Your task to perform on an android device: open app "DoorDash - Food Delivery" (install if not already installed) Image 0: 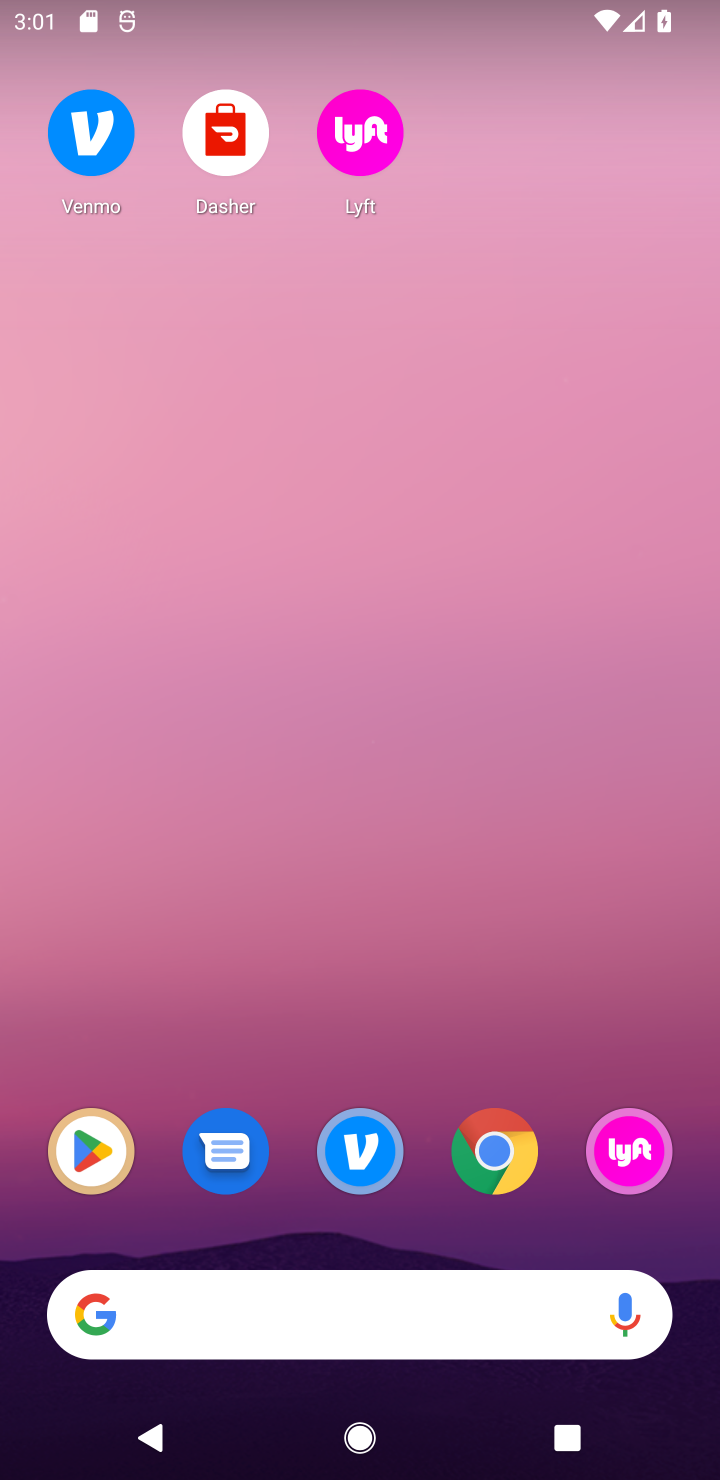
Step 0: drag from (319, 1260) to (337, 316)
Your task to perform on an android device: open app "DoorDash - Food Delivery" (install if not already installed) Image 1: 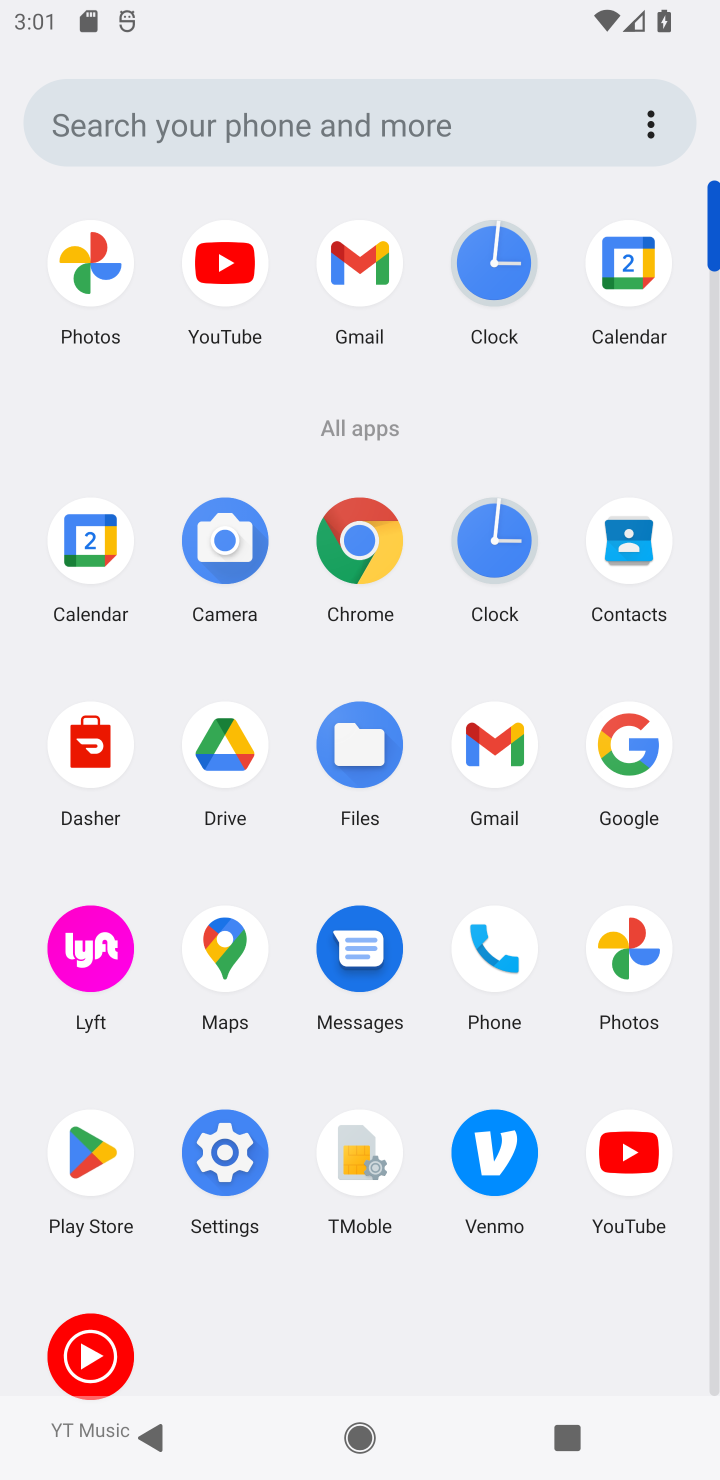
Step 1: click (88, 1185)
Your task to perform on an android device: open app "DoorDash - Food Delivery" (install if not already installed) Image 2: 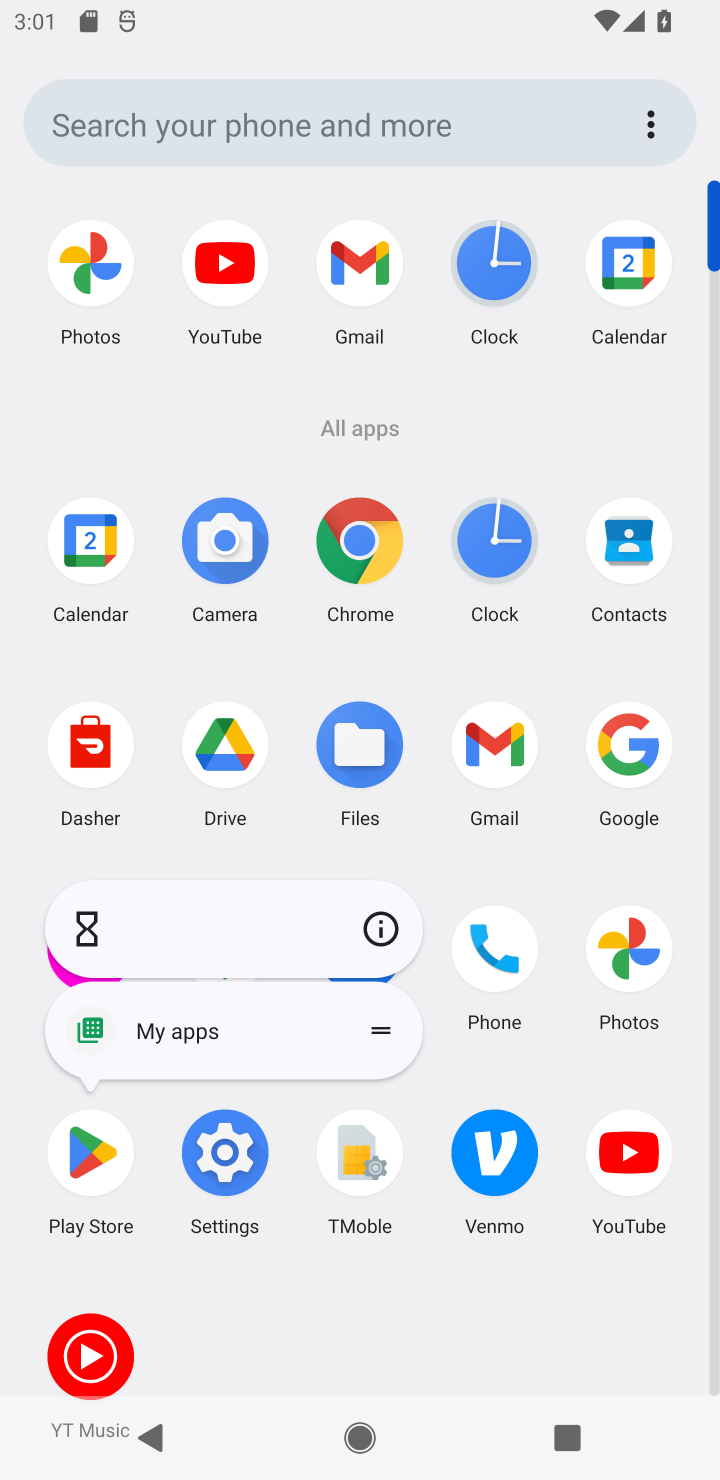
Step 2: click (87, 1216)
Your task to perform on an android device: open app "DoorDash - Food Delivery" (install if not already installed) Image 3: 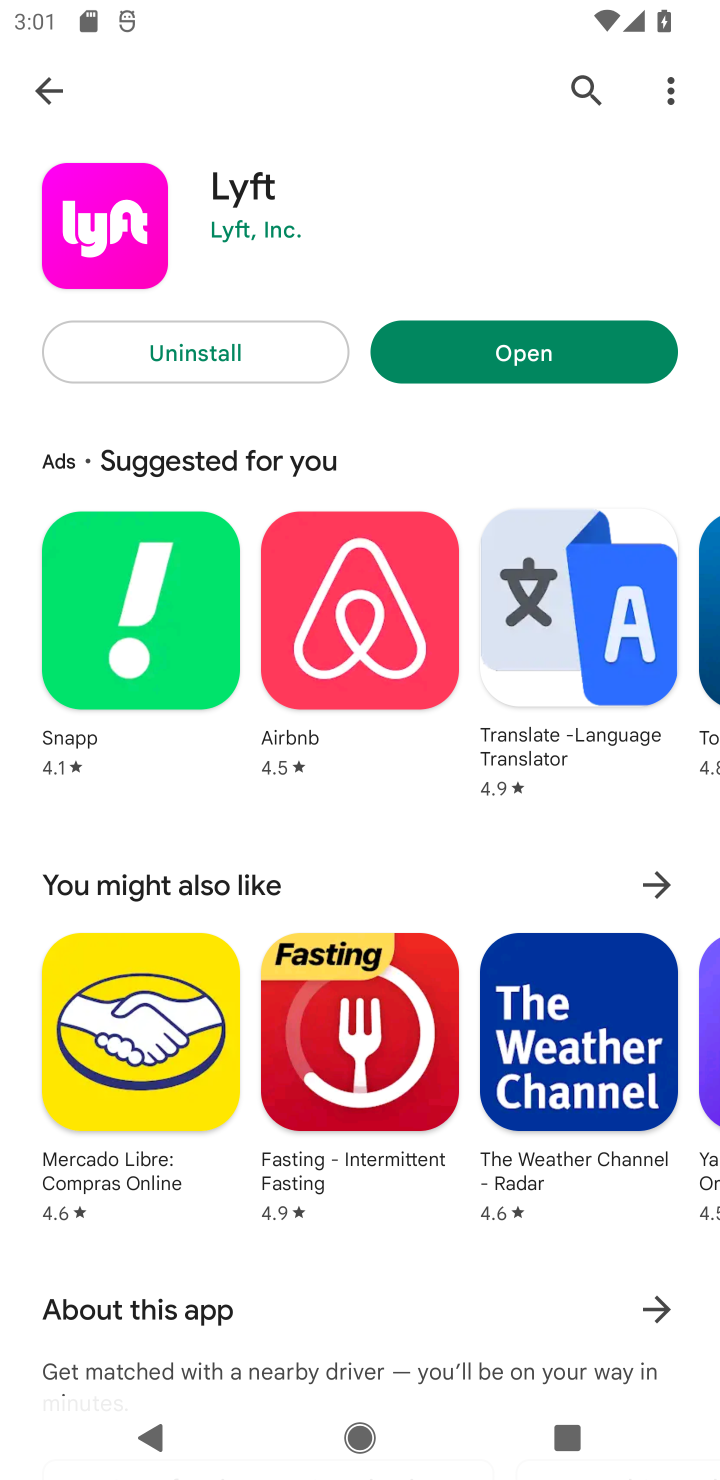
Step 3: click (49, 95)
Your task to perform on an android device: open app "DoorDash - Food Delivery" (install if not already installed) Image 4: 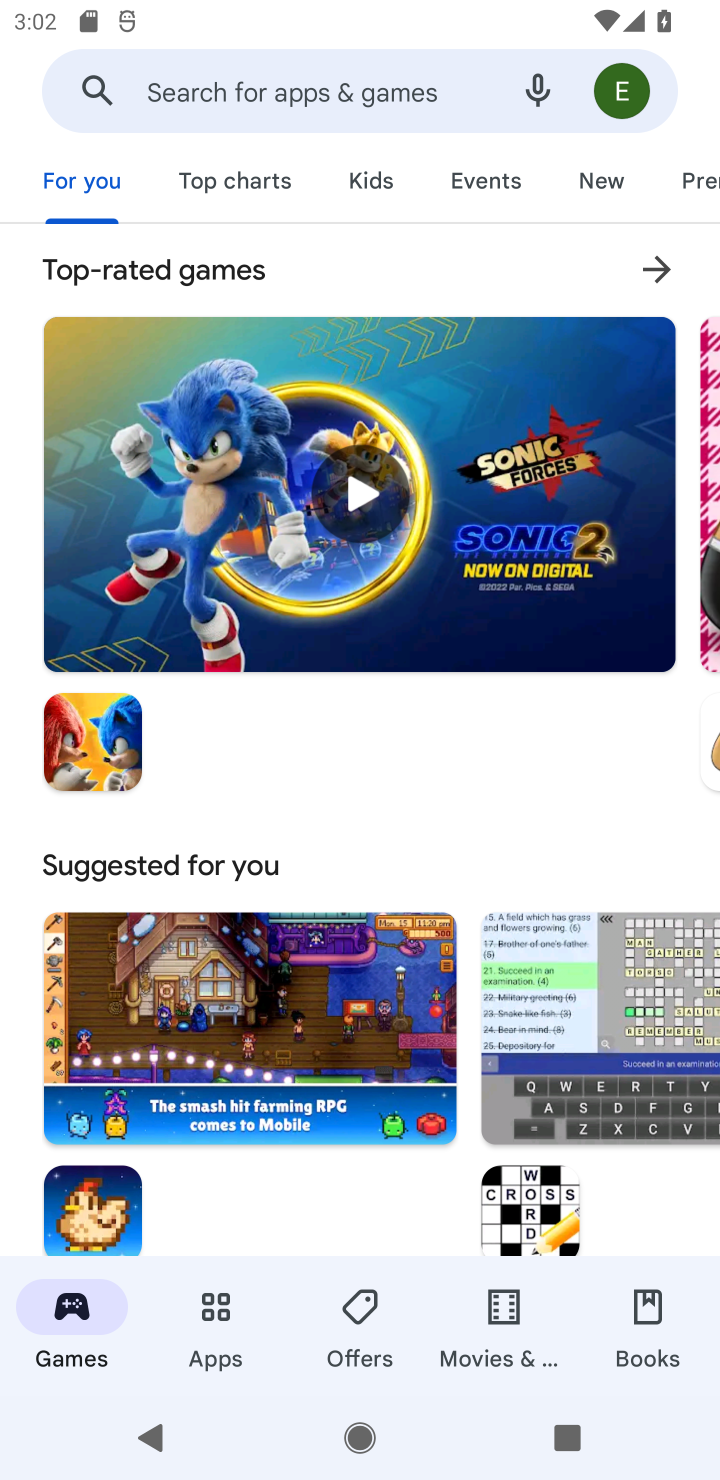
Step 4: click (200, 81)
Your task to perform on an android device: open app "DoorDash - Food Delivery" (install if not already installed) Image 5: 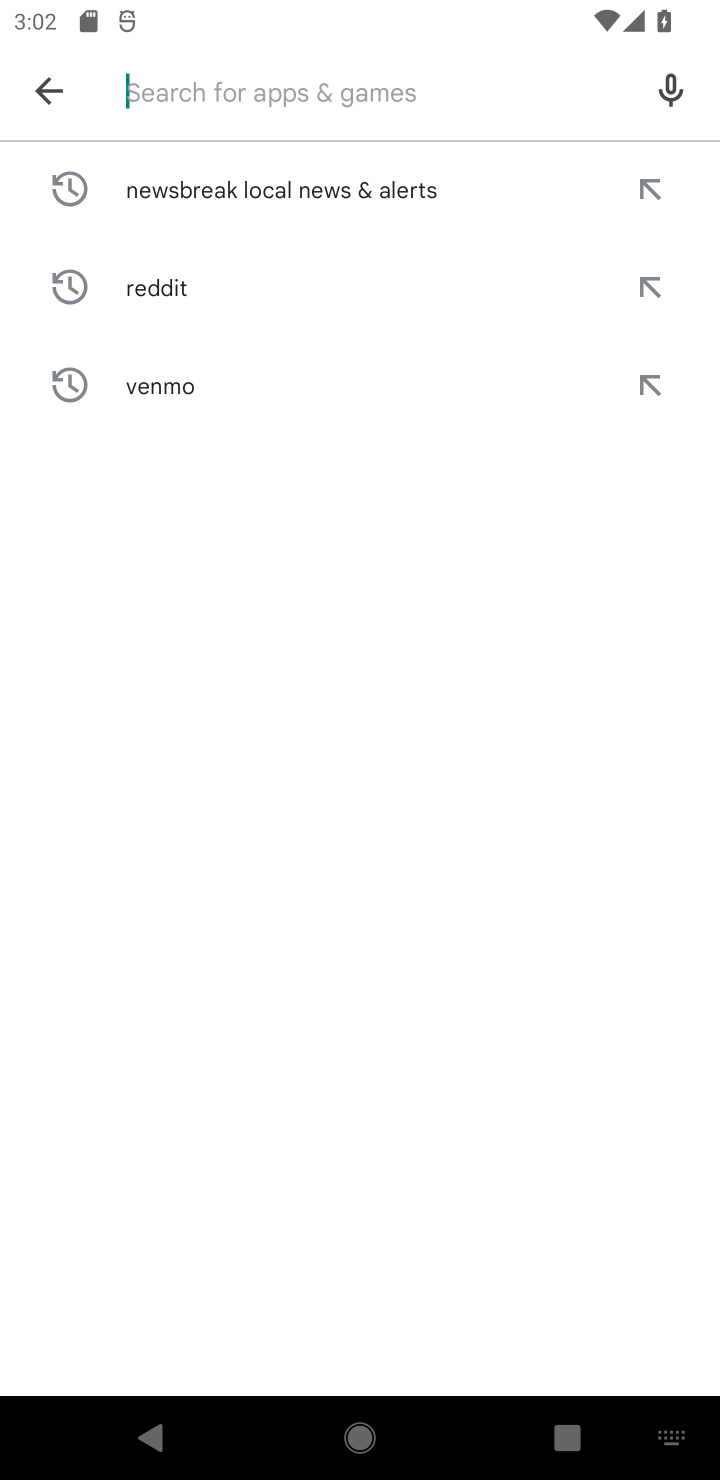
Step 5: type "DoorDash - Food Delivery"
Your task to perform on an android device: open app "DoorDash - Food Delivery" (install if not already installed) Image 6: 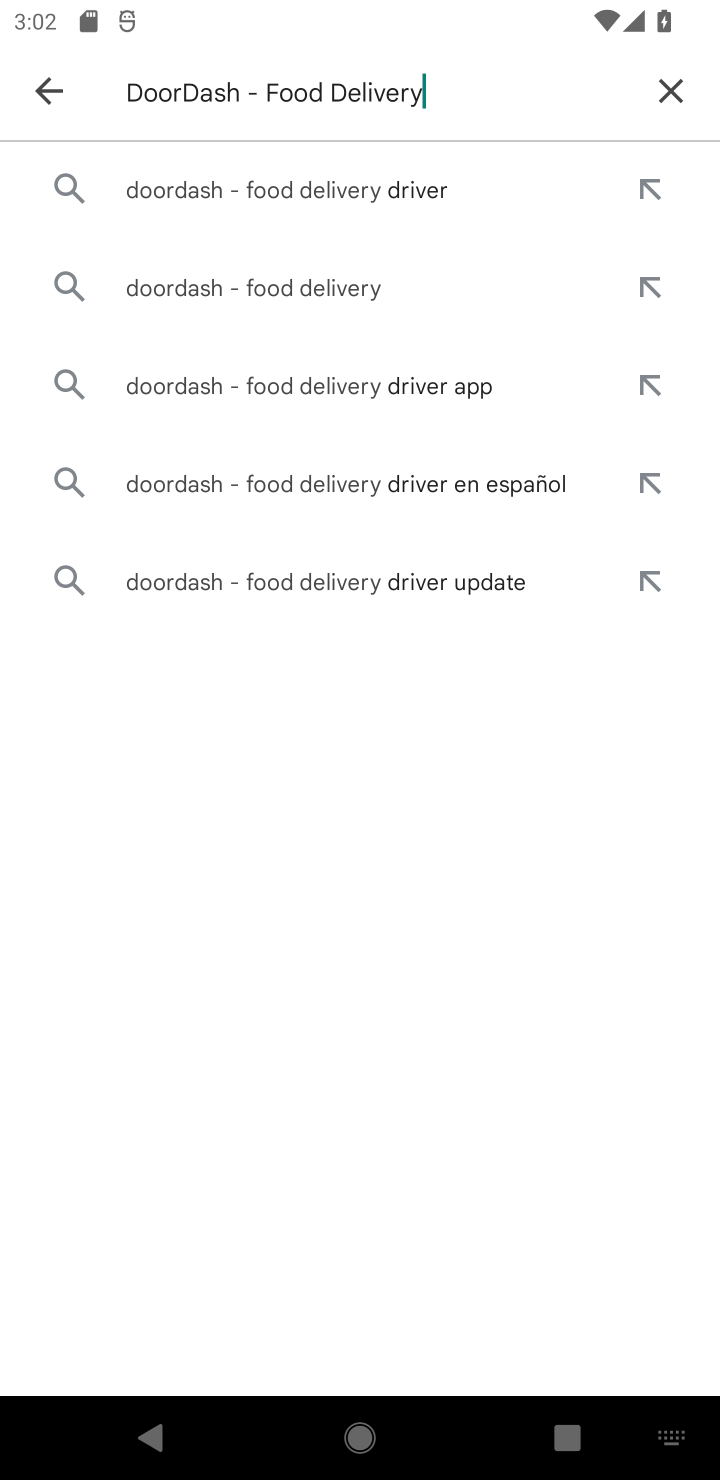
Step 6: click (305, 194)
Your task to perform on an android device: open app "DoorDash - Food Delivery" (install if not already installed) Image 7: 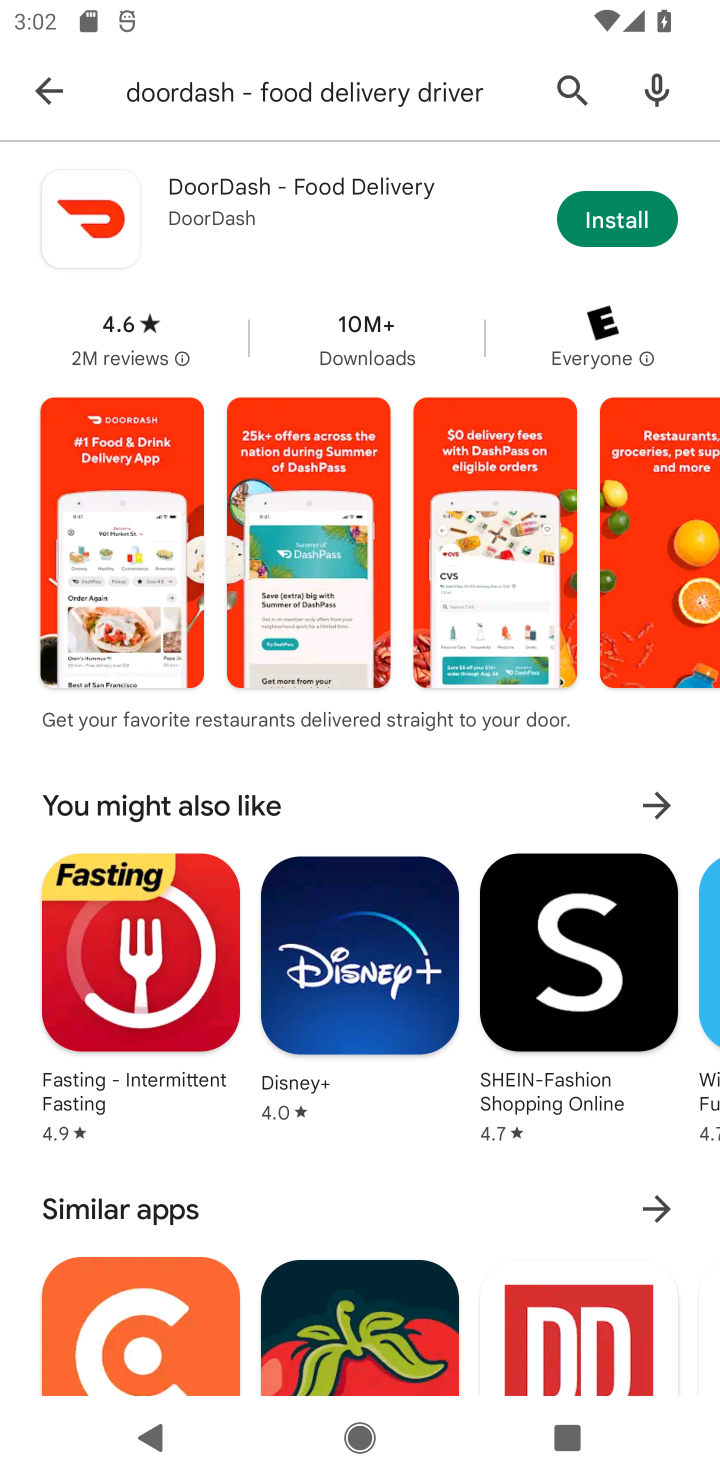
Step 7: click (632, 216)
Your task to perform on an android device: open app "DoorDash - Food Delivery" (install if not already installed) Image 8: 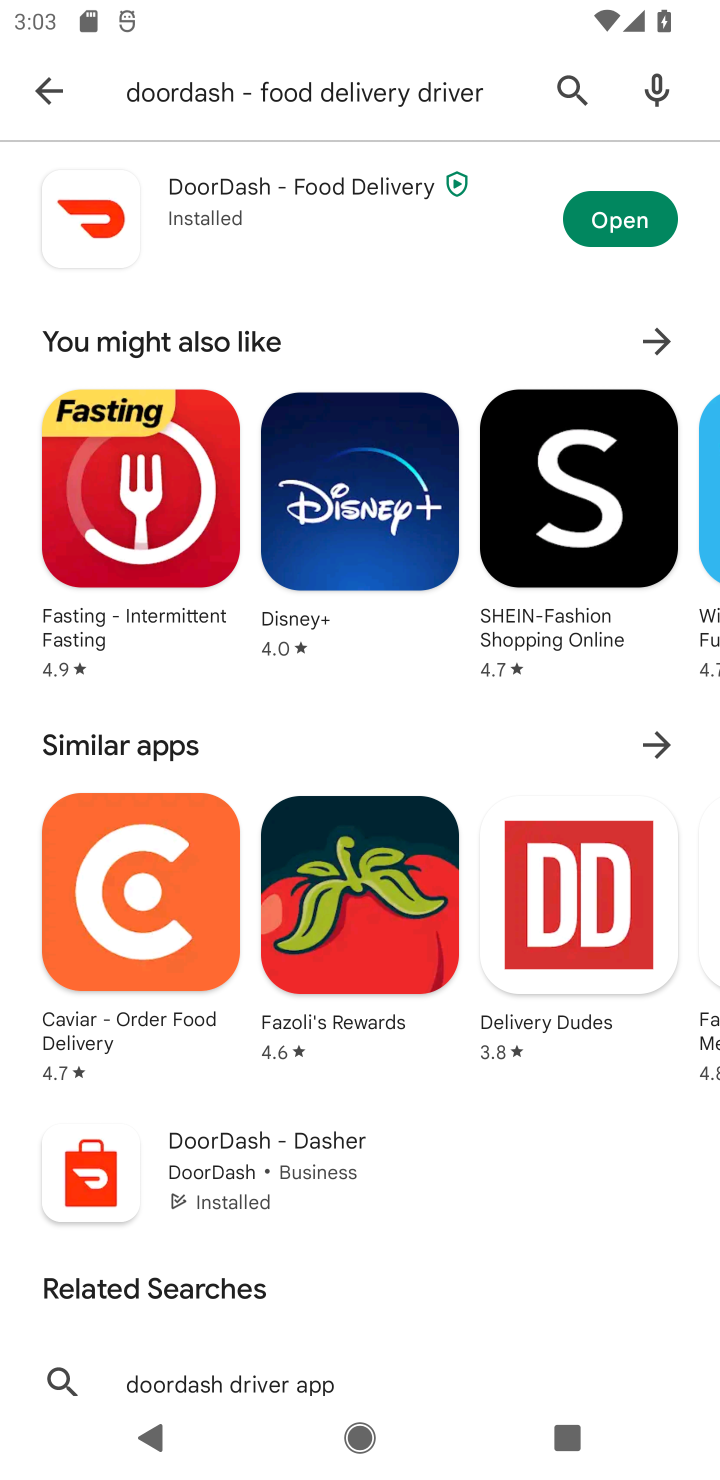
Step 8: click (616, 215)
Your task to perform on an android device: open app "DoorDash - Food Delivery" (install if not already installed) Image 9: 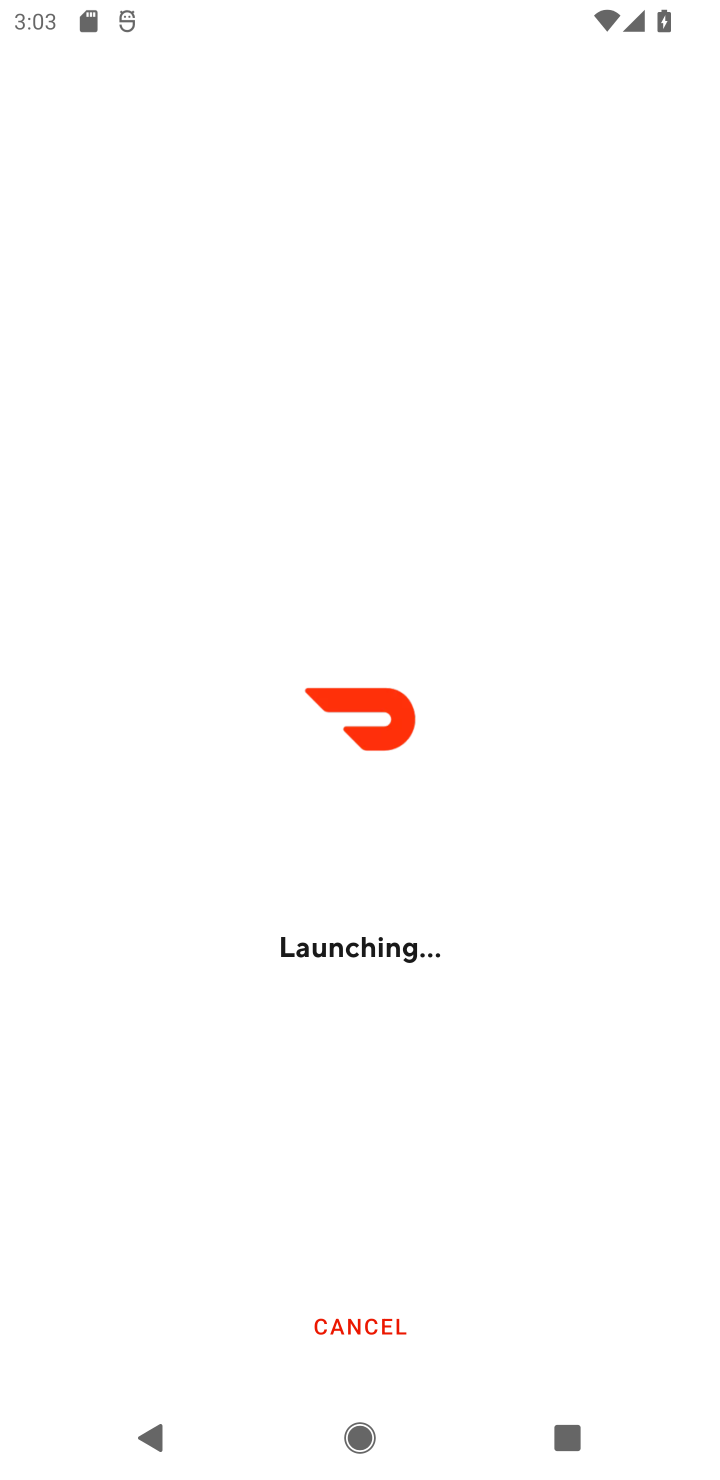
Step 9: task complete